Your task to perform on an android device: What's on my calendar today? Image 0: 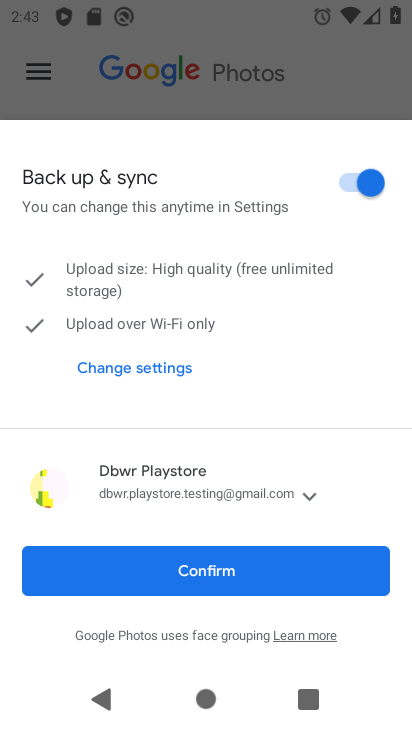
Step 0: press home button
Your task to perform on an android device: What's on my calendar today? Image 1: 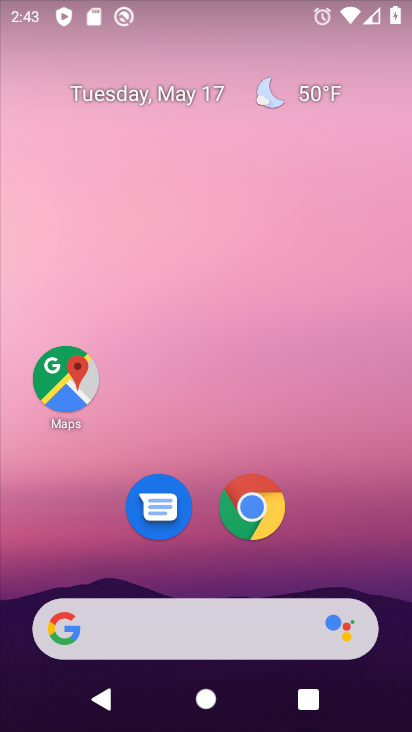
Step 1: click (200, 88)
Your task to perform on an android device: What's on my calendar today? Image 2: 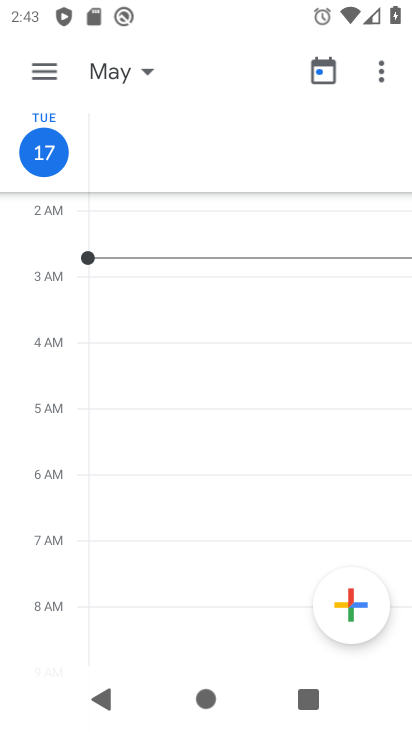
Step 2: task complete